Your task to perform on an android device: search for starred emails in the gmail app Image 0: 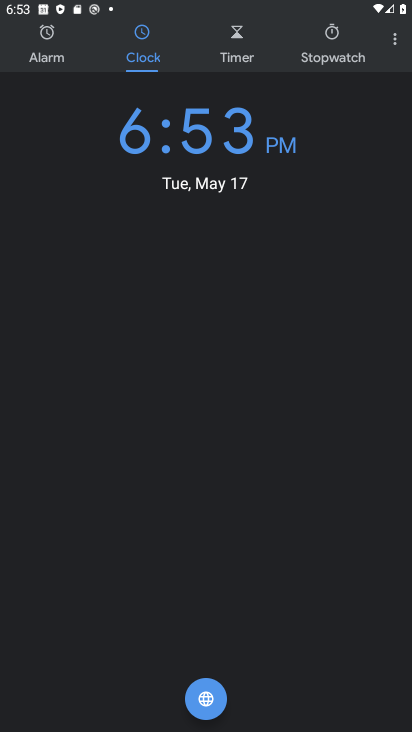
Step 0: press home button
Your task to perform on an android device: search for starred emails in the gmail app Image 1: 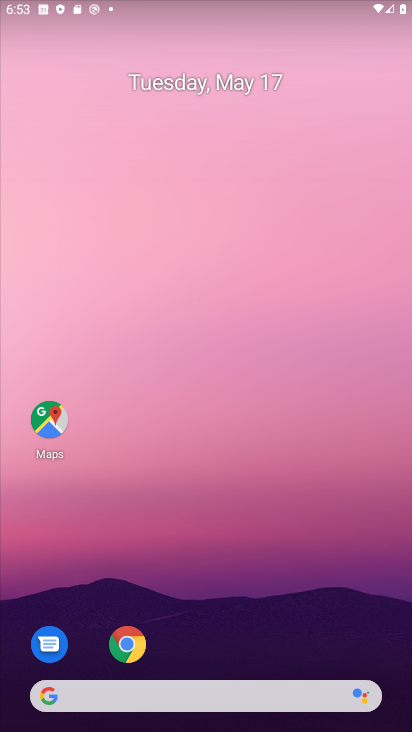
Step 1: drag from (351, 659) to (299, 71)
Your task to perform on an android device: search for starred emails in the gmail app Image 2: 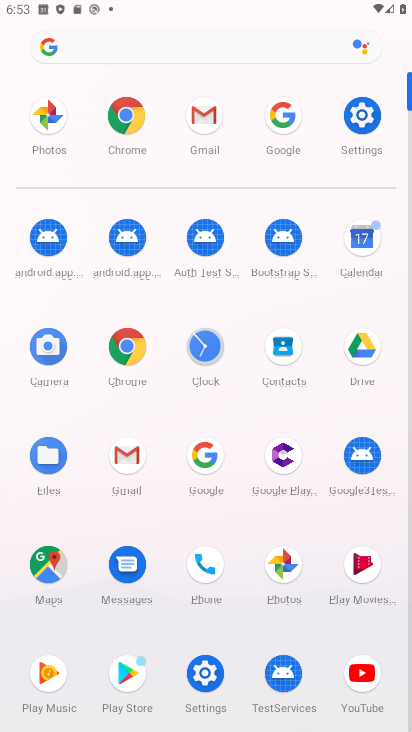
Step 2: click (130, 449)
Your task to perform on an android device: search for starred emails in the gmail app Image 3: 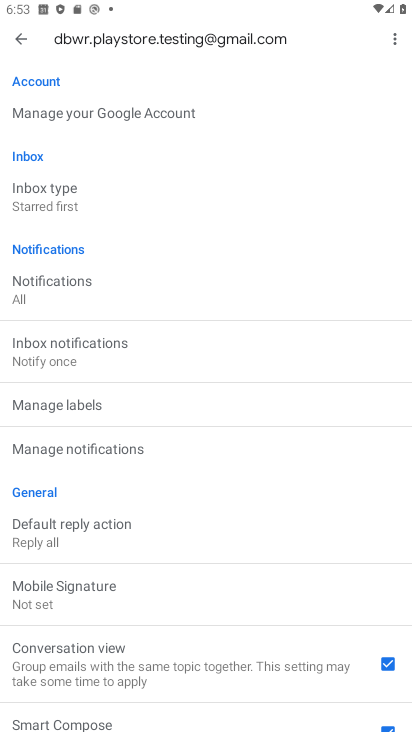
Step 3: press back button
Your task to perform on an android device: search for starred emails in the gmail app Image 4: 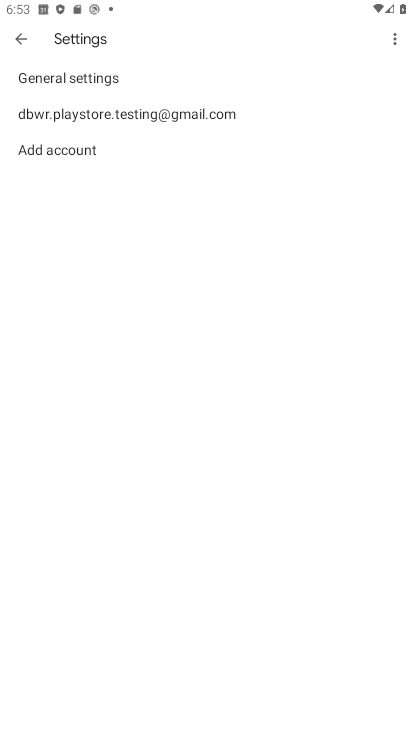
Step 4: press back button
Your task to perform on an android device: search for starred emails in the gmail app Image 5: 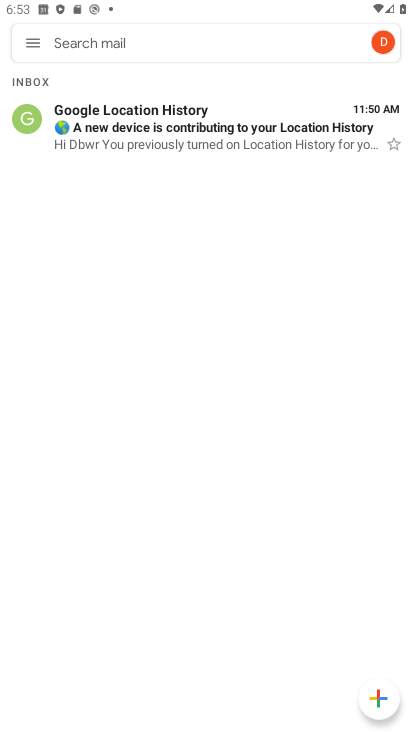
Step 5: click (37, 38)
Your task to perform on an android device: search for starred emails in the gmail app Image 6: 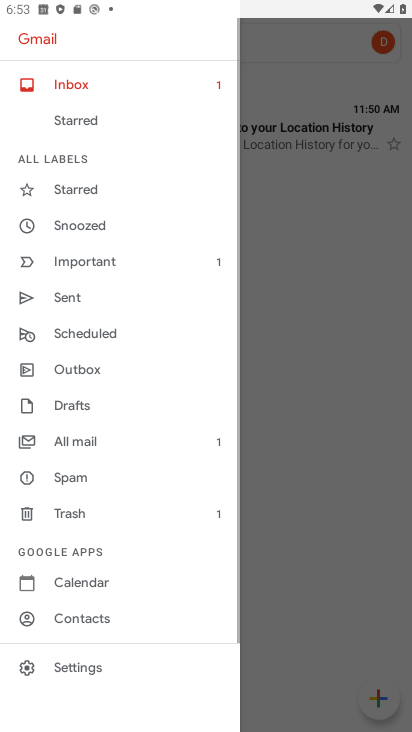
Step 6: click (98, 199)
Your task to perform on an android device: search for starred emails in the gmail app Image 7: 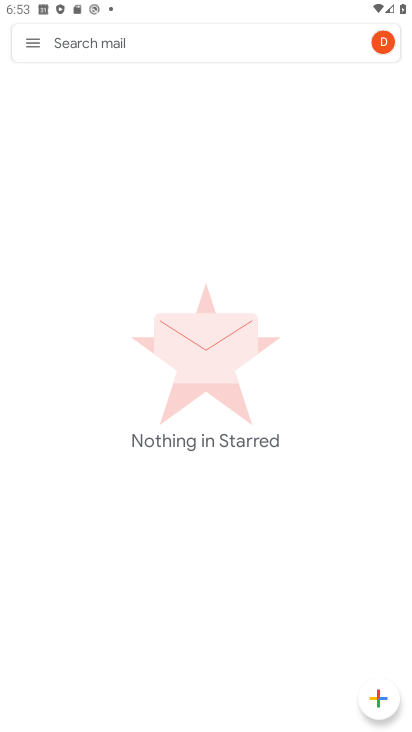
Step 7: task complete